Your task to perform on an android device: Add "amazon basics triple a" to the cart on bestbuy.com, then select checkout. Image 0: 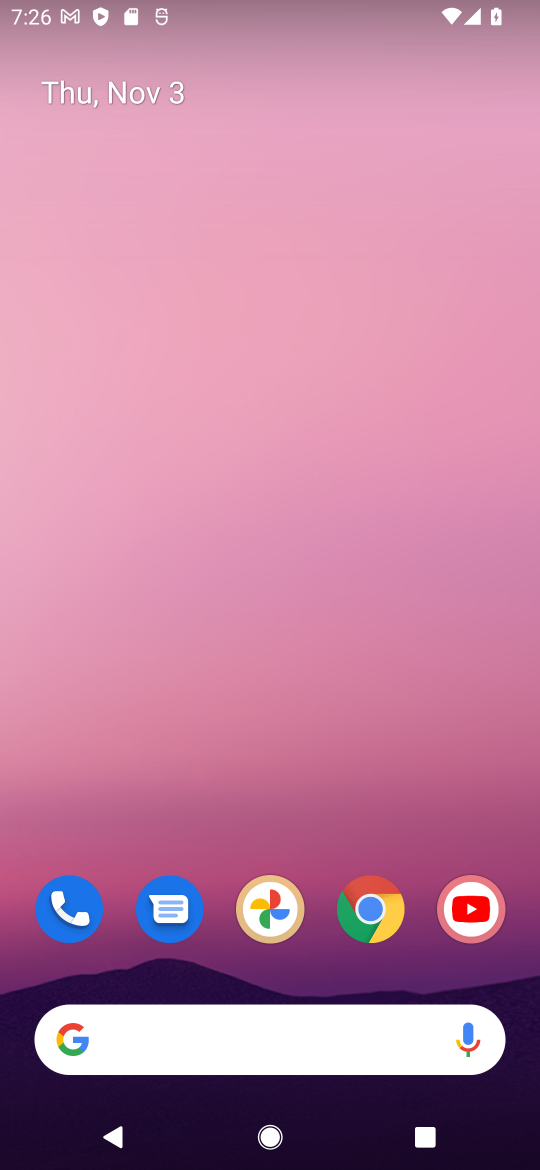
Step 0: drag from (10, 849) to (35, 377)
Your task to perform on an android device: Add "amazon basics triple a" to the cart on bestbuy.com, then select checkout. Image 1: 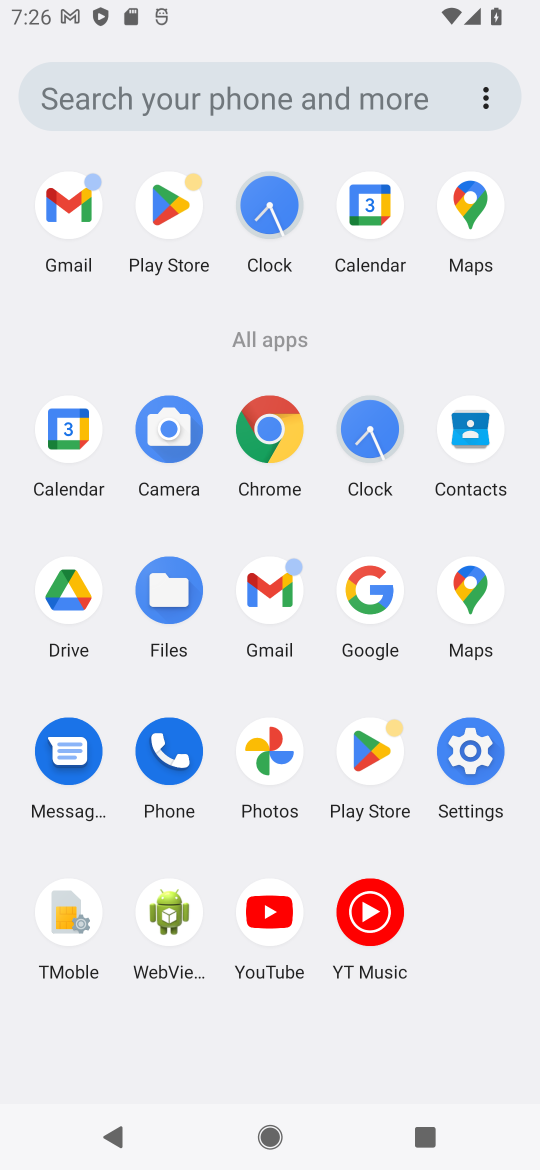
Step 1: click (380, 579)
Your task to perform on an android device: Add "amazon basics triple a" to the cart on bestbuy.com, then select checkout. Image 2: 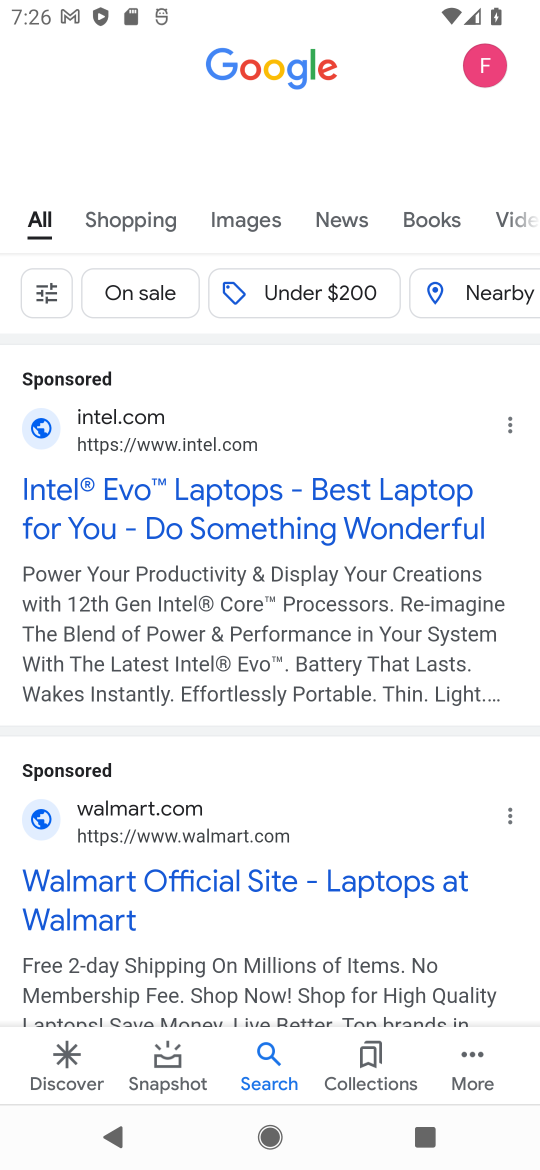
Step 2: drag from (251, 344) to (268, 953)
Your task to perform on an android device: Add "amazon basics triple a" to the cart on bestbuy.com, then select checkout. Image 3: 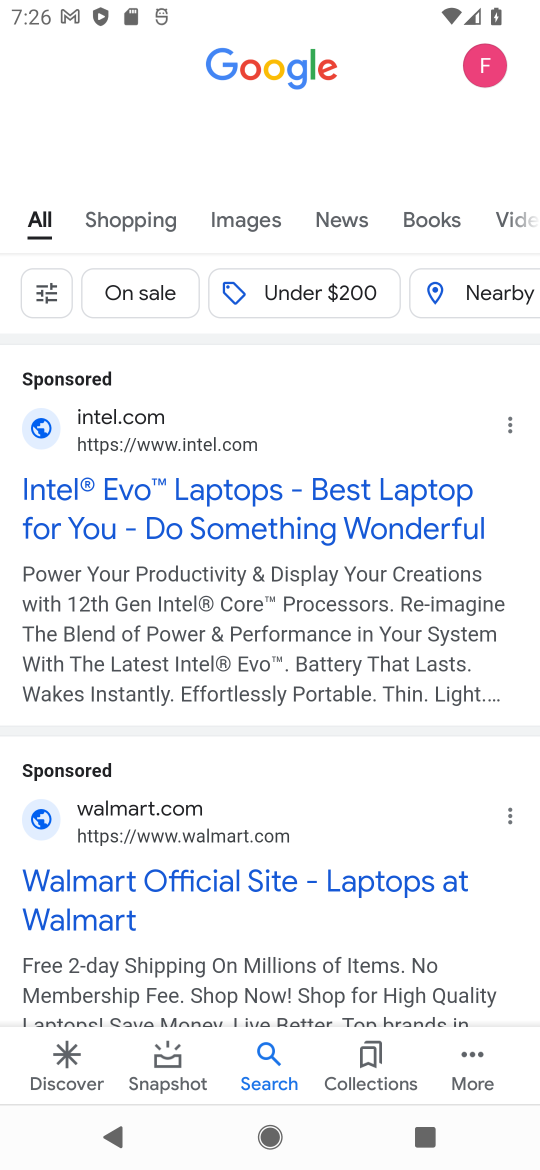
Step 3: drag from (201, 227) to (190, 938)
Your task to perform on an android device: Add "amazon basics triple a" to the cart on bestbuy.com, then select checkout. Image 4: 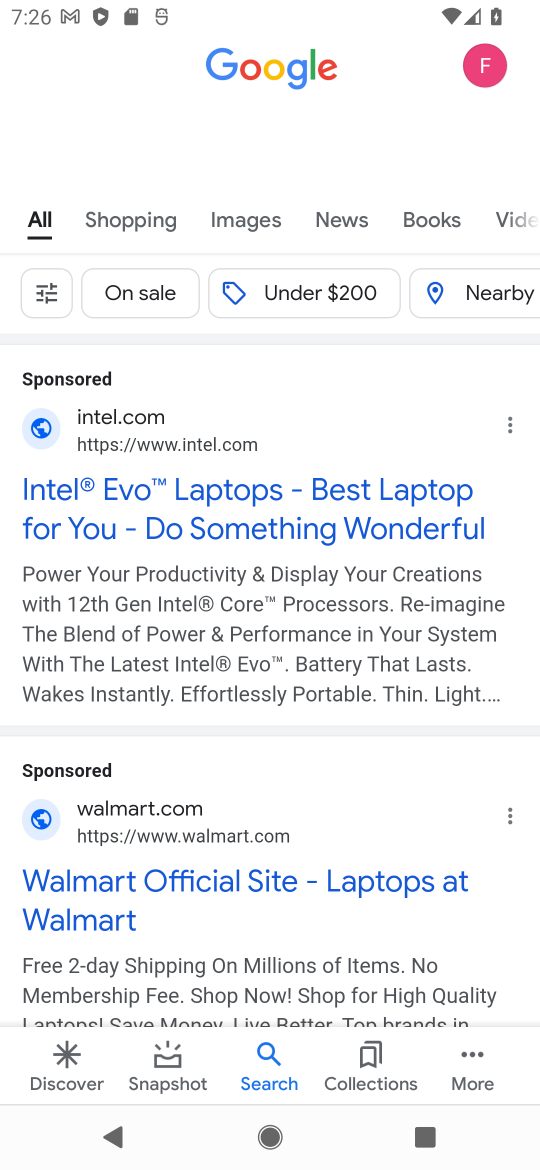
Step 4: drag from (279, 887) to (328, 233)
Your task to perform on an android device: Add "amazon basics triple a" to the cart on bestbuy.com, then select checkout. Image 5: 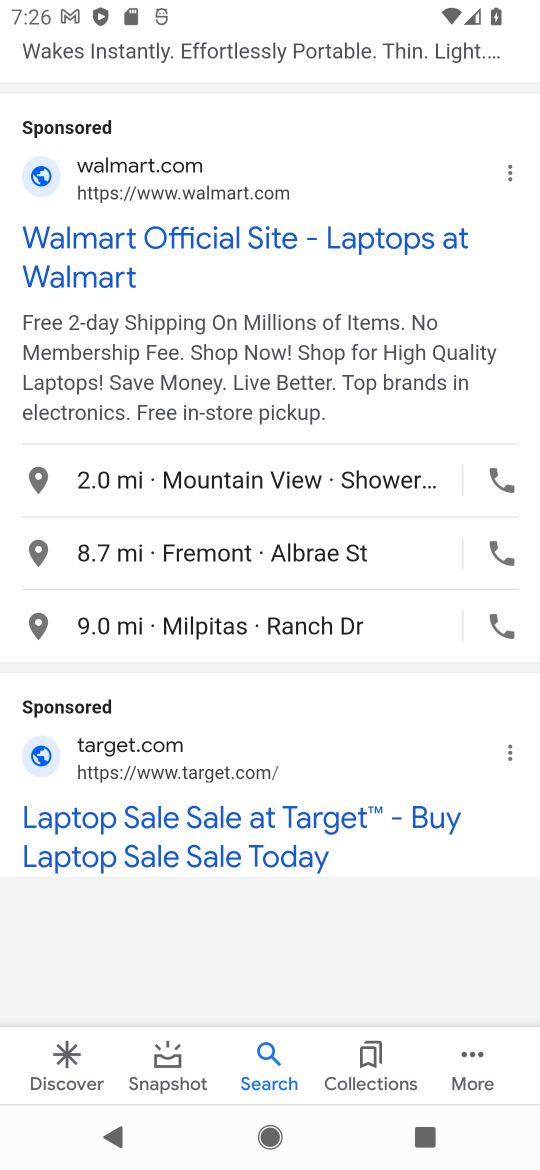
Step 5: drag from (328, 244) to (331, 868)
Your task to perform on an android device: Add "amazon basics triple a" to the cart on bestbuy.com, then select checkout. Image 6: 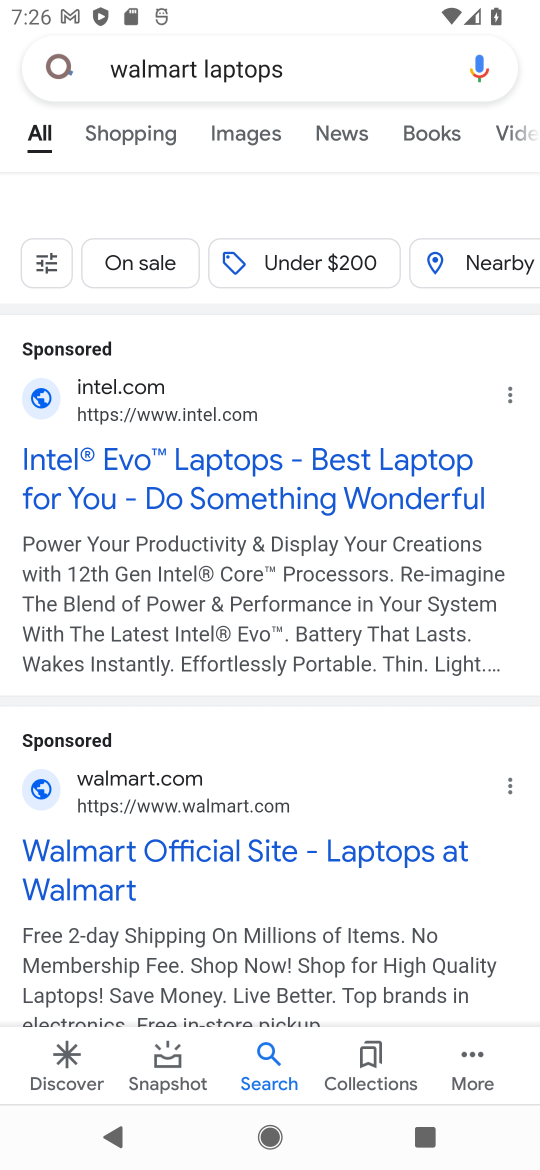
Step 6: drag from (268, 84) to (232, 712)
Your task to perform on an android device: Add "amazon basics triple a" to the cart on bestbuy.com, then select checkout. Image 7: 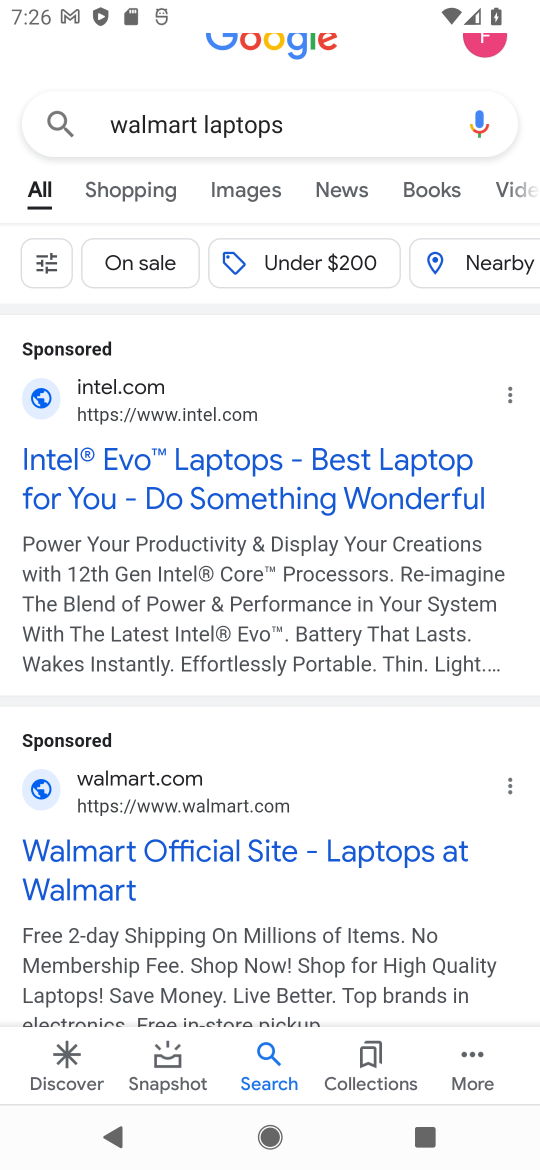
Step 7: click (290, 115)
Your task to perform on an android device: Add "amazon basics triple a" to the cart on bestbuy.com, then select checkout. Image 8: 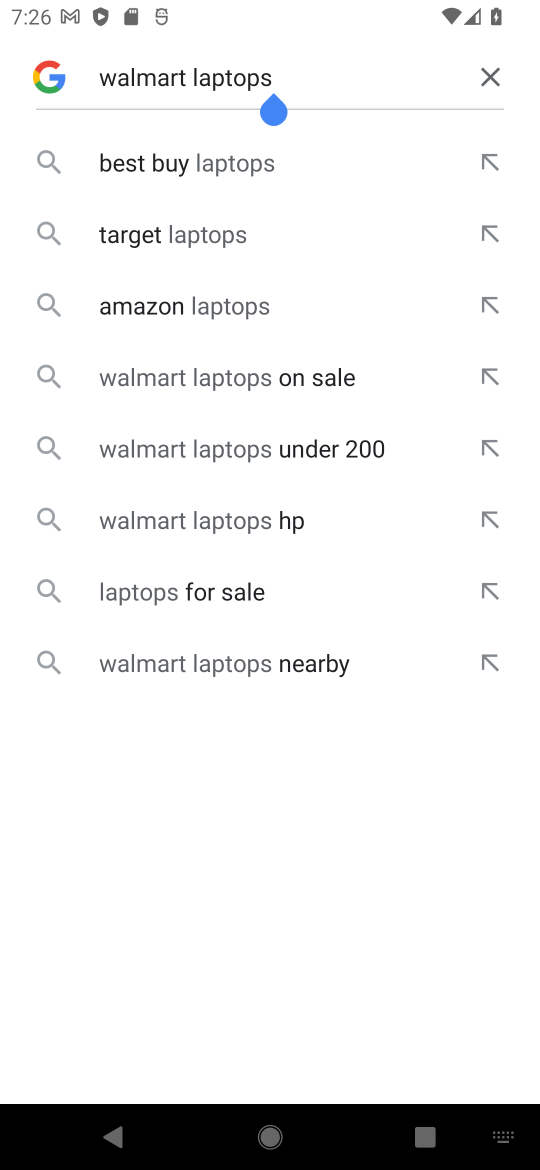
Step 8: click (489, 72)
Your task to perform on an android device: Add "amazon basics triple a" to the cart on bestbuy.com, then select checkout. Image 9: 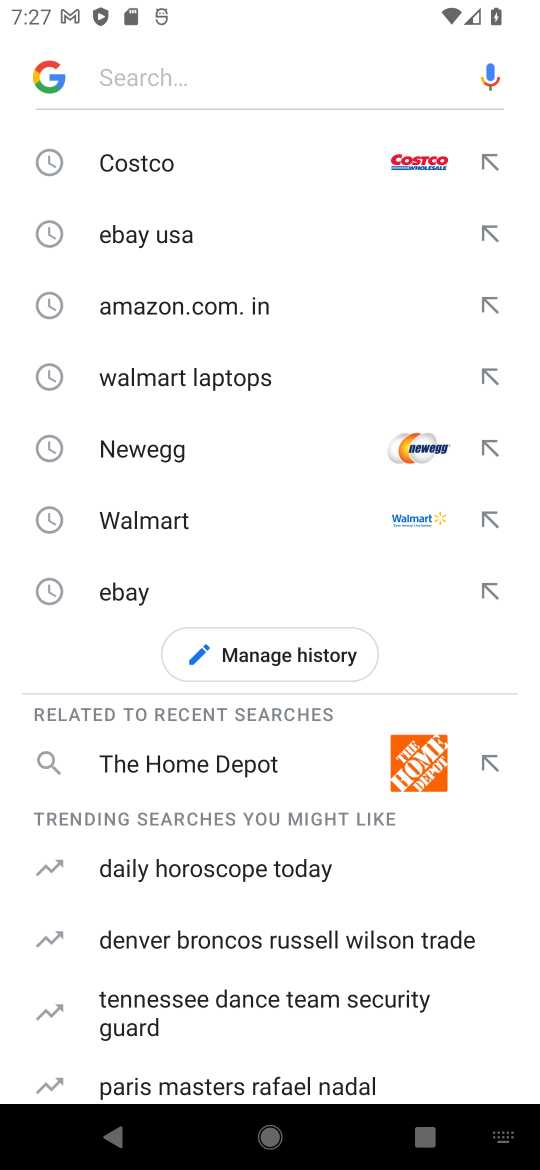
Step 9: click (227, 54)
Your task to perform on an android device: Add "amazon basics triple a" to the cart on bestbuy.com, then select checkout. Image 10: 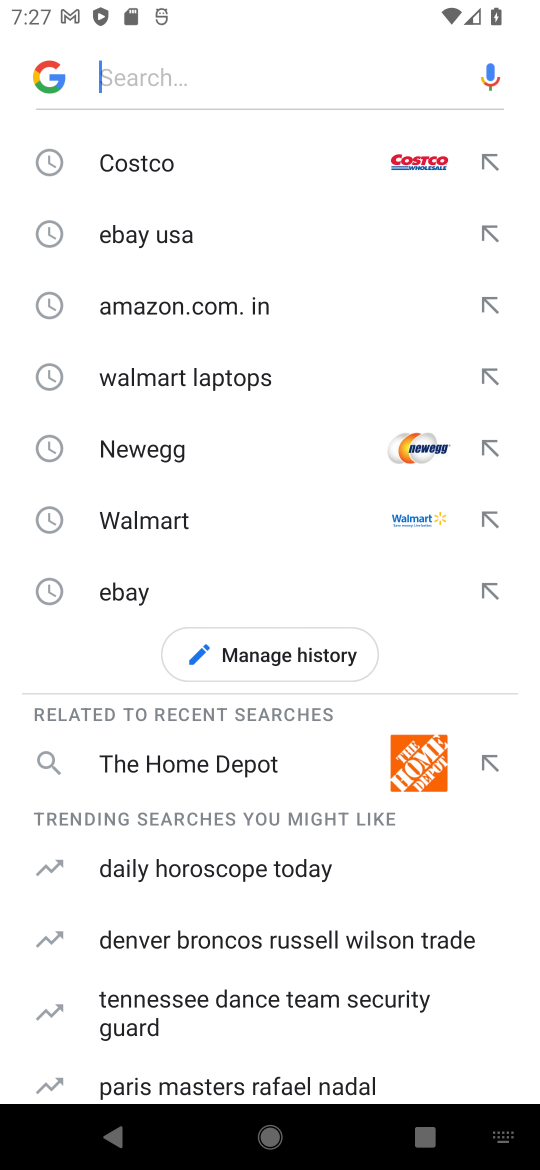
Step 10: type "bestbuy "
Your task to perform on an android device: Add "amazon basics triple a" to the cart on bestbuy.com, then select checkout. Image 11: 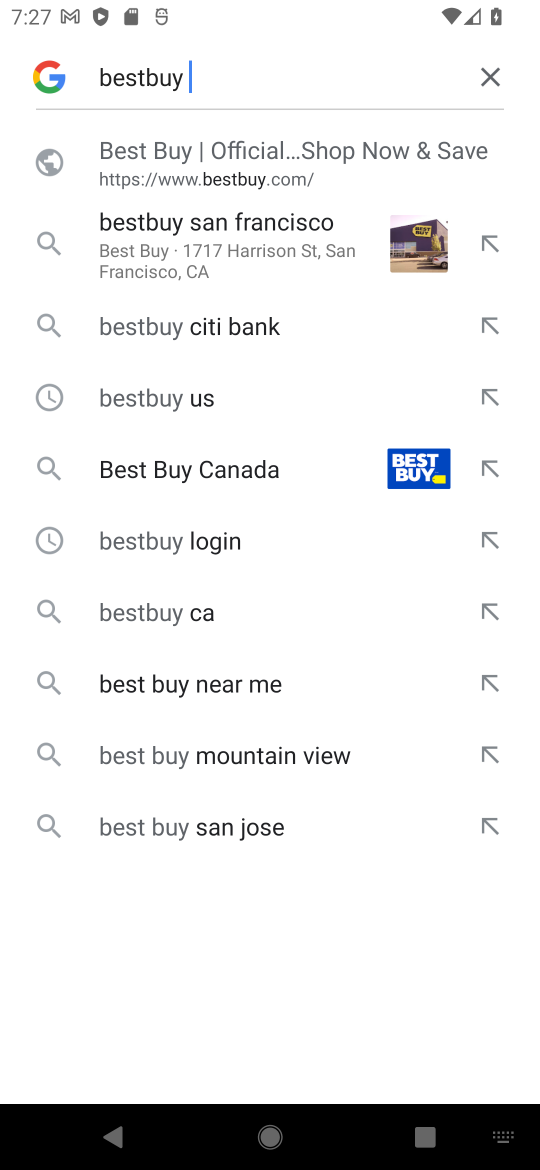
Step 11: click (181, 150)
Your task to perform on an android device: Add "amazon basics triple a" to the cart on bestbuy.com, then select checkout. Image 12: 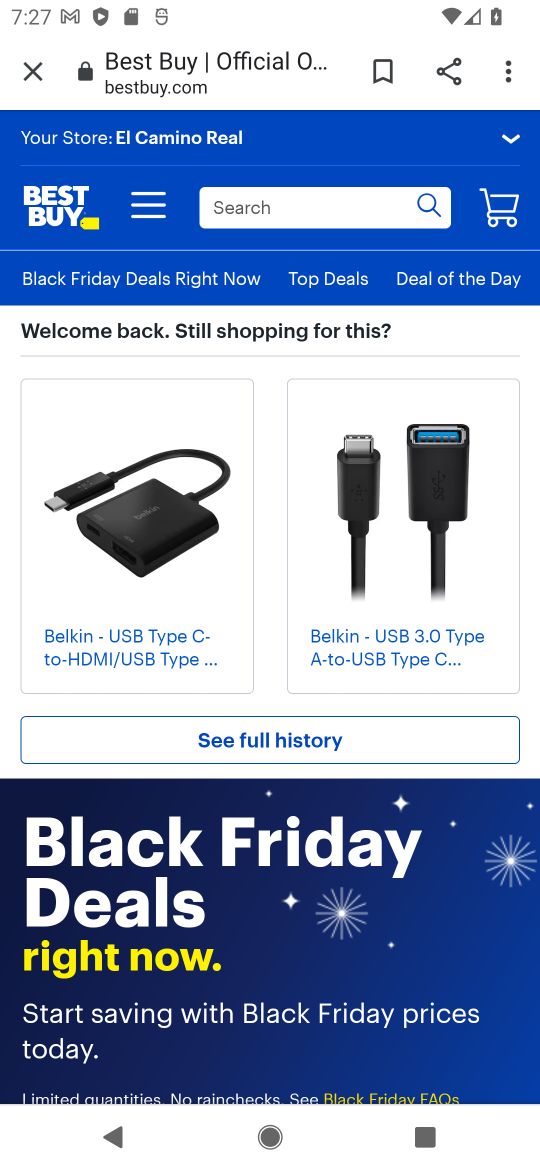
Step 12: click (291, 188)
Your task to perform on an android device: Add "amazon basics triple a" to the cart on bestbuy.com, then select checkout. Image 13: 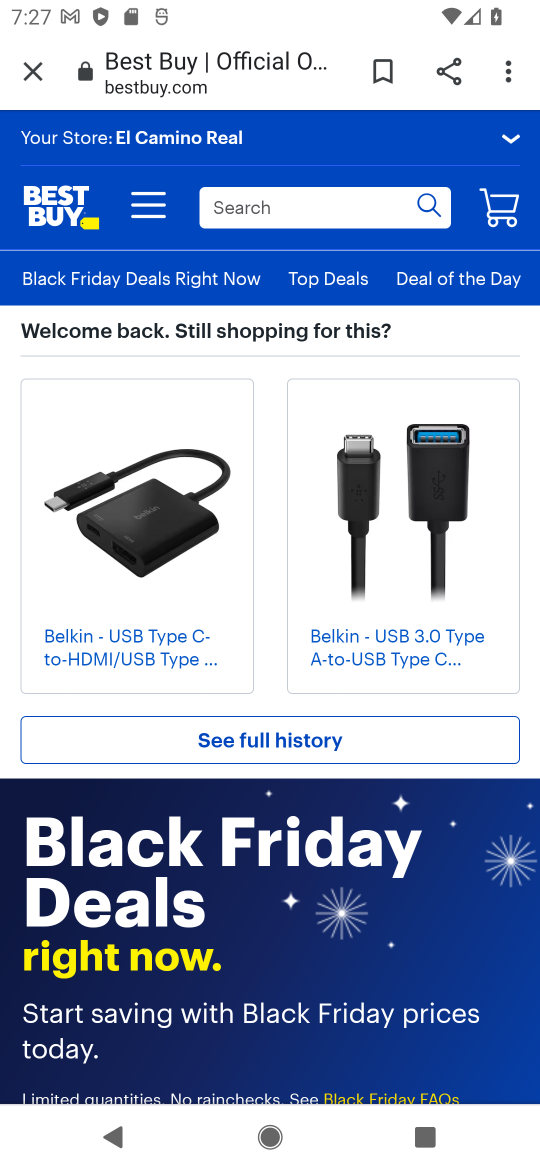
Step 13: click (291, 203)
Your task to perform on an android device: Add "amazon basics triple a" to the cart on bestbuy.com, then select checkout. Image 14: 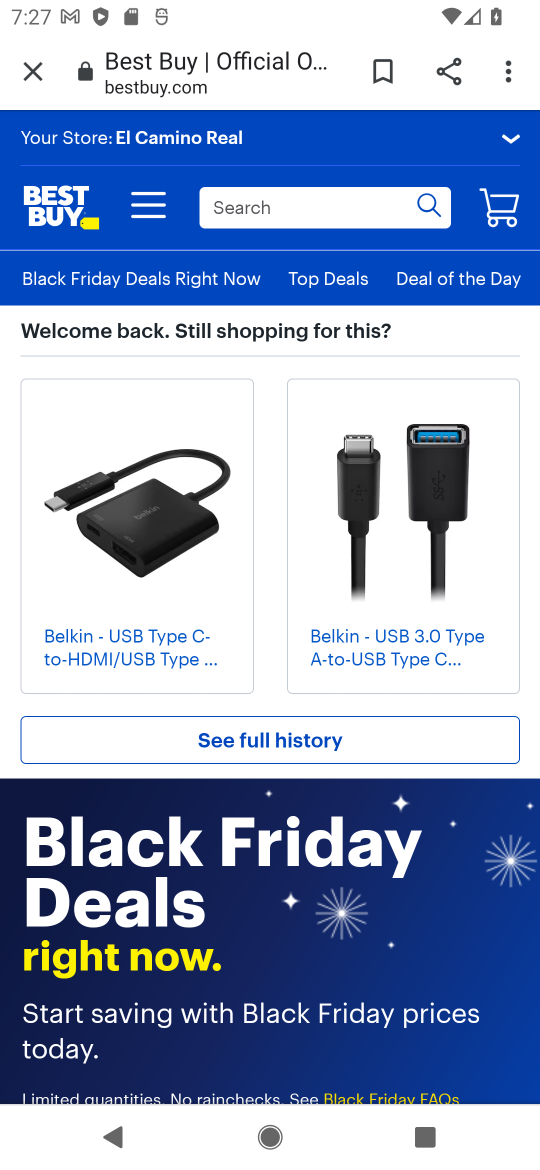
Step 14: type "amazon basics triple  "
Your task to perform on an android device: Add "amazon basics triple a" to the cart on bestbuy.com, then select checkout. Image 15: 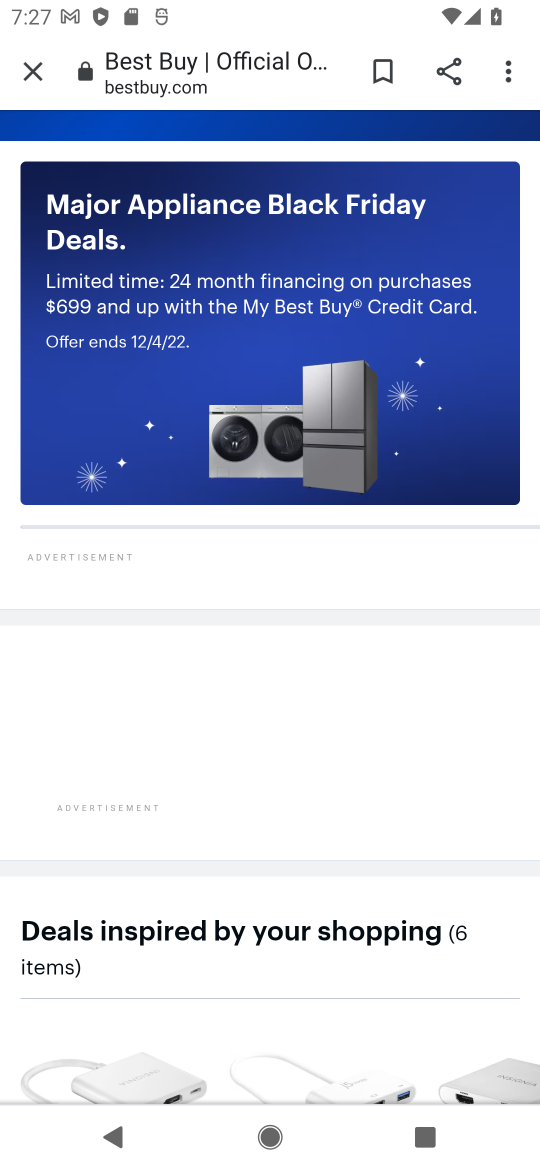
Step 15: drag from (315, 267) to (318, 887)
Your task to perform on an android device: Add "amazon basics triple a" to the cart on bestbuy.com, then select checkout. Image 16: 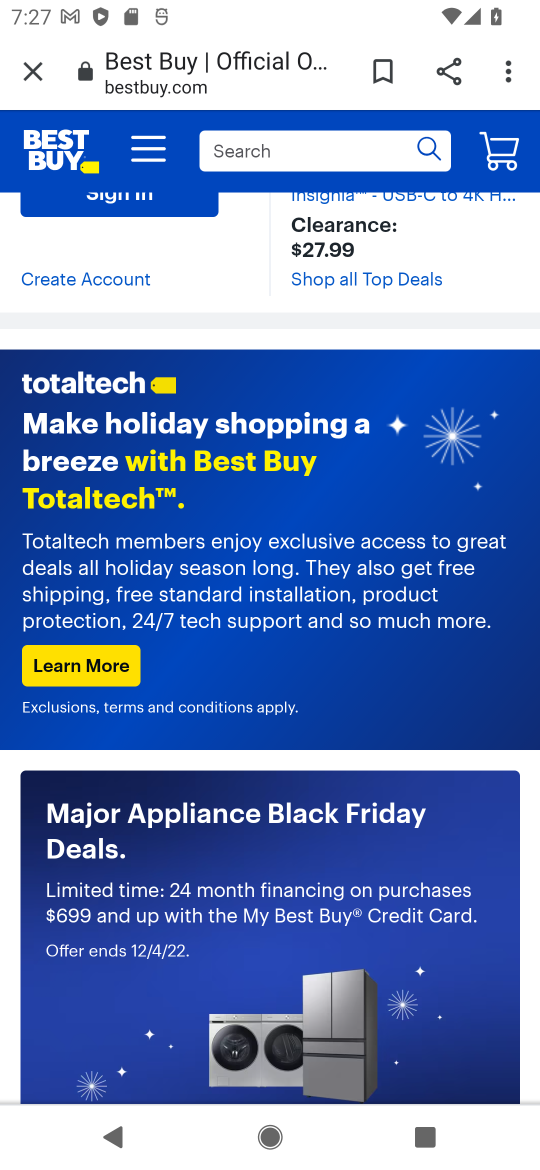
Step 16: click (308, 145)
Your task to perform on an android device: Add "amazon basics triple a" to the cart on bestbuy.com, then select checkout. Image 17: 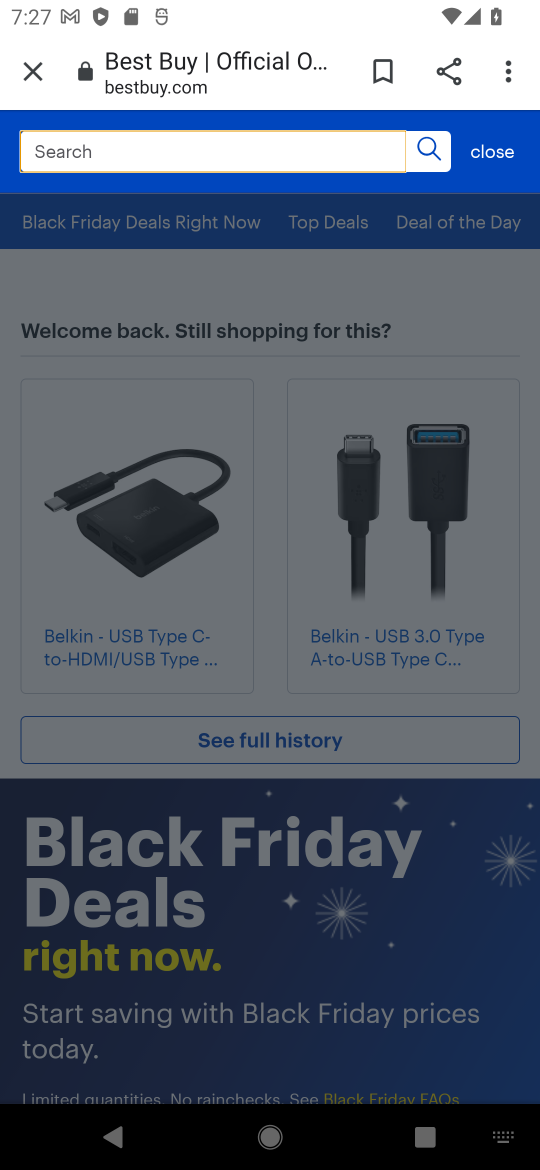
Step 17: type "amazon basics triple  "
Your task to perform on an android device: Add "amazon basics triple a" to the cart on bestbuy.com, then select checkout. Image 18: 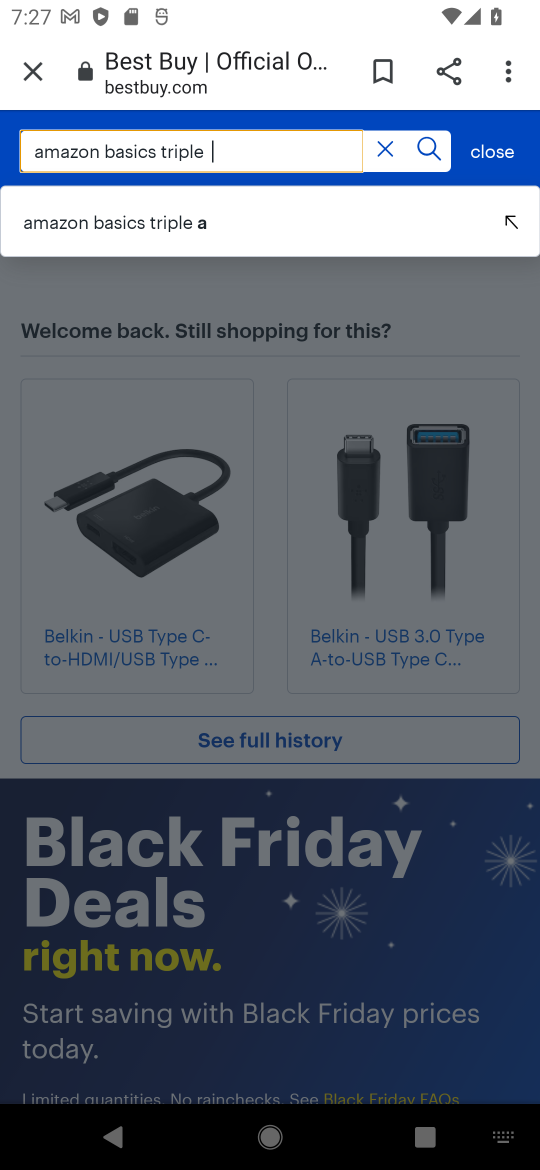
Step 18: click (168, 218)
Your task to perform on an android device: Add "amazon basics triple a" to the cart on bestbuy.com, then select checkout. Image 19: 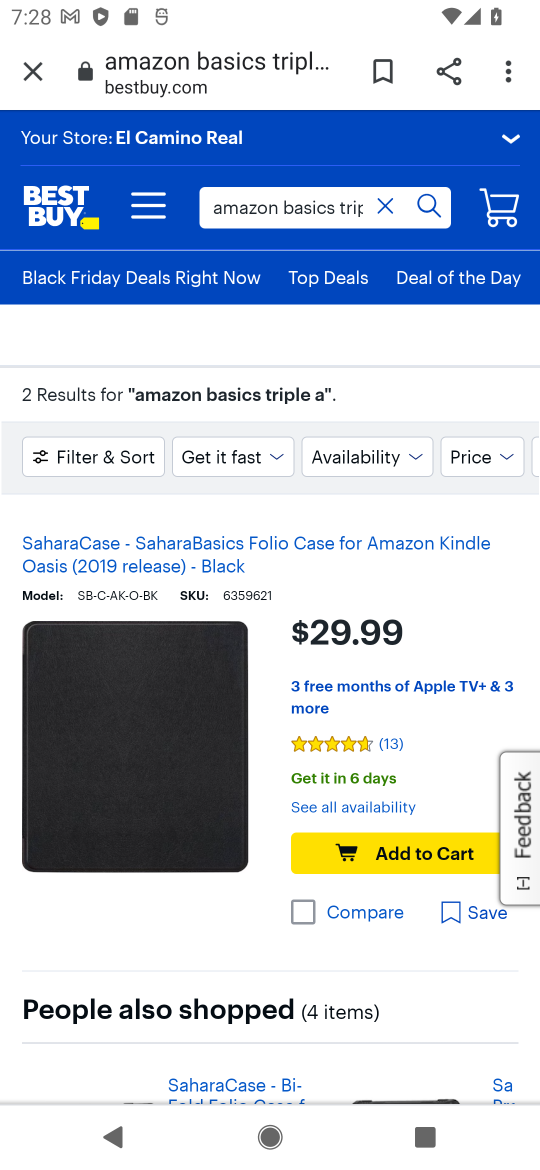
Step 19: drag from (263, 954) to (301, 533)
Your task to perform on an android device: Add "amazon basics triple a" to the cart on bestbuy.com, then select checkout. Image 20: 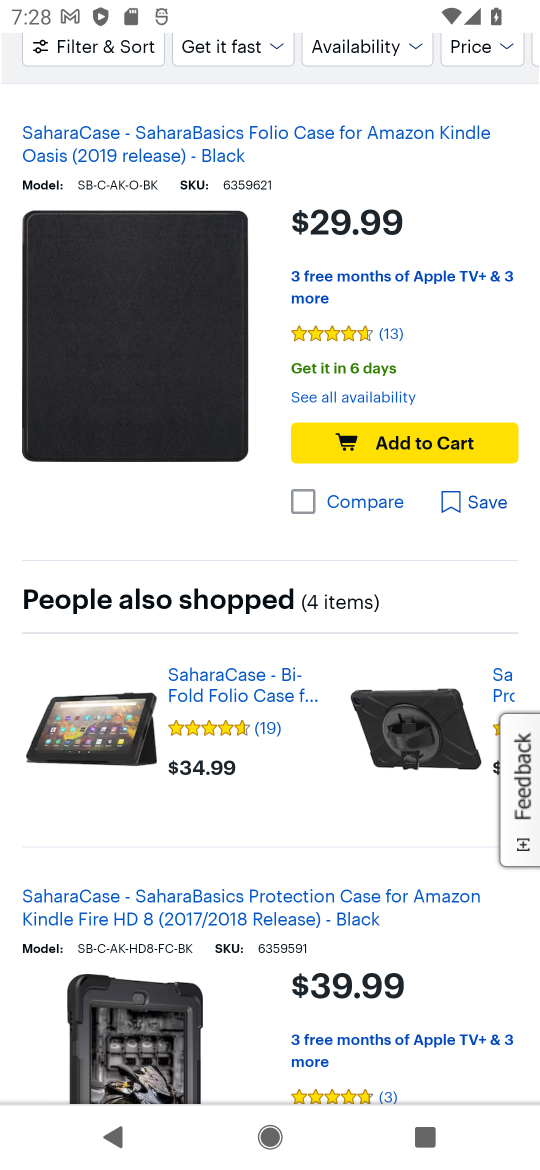
Step 20: drag from (303, 936) to (303, 585)
Your task to perform on an android device: Add "amazon basics triple a" to the cart on bestbuy.com, then select checkout. Image 21: 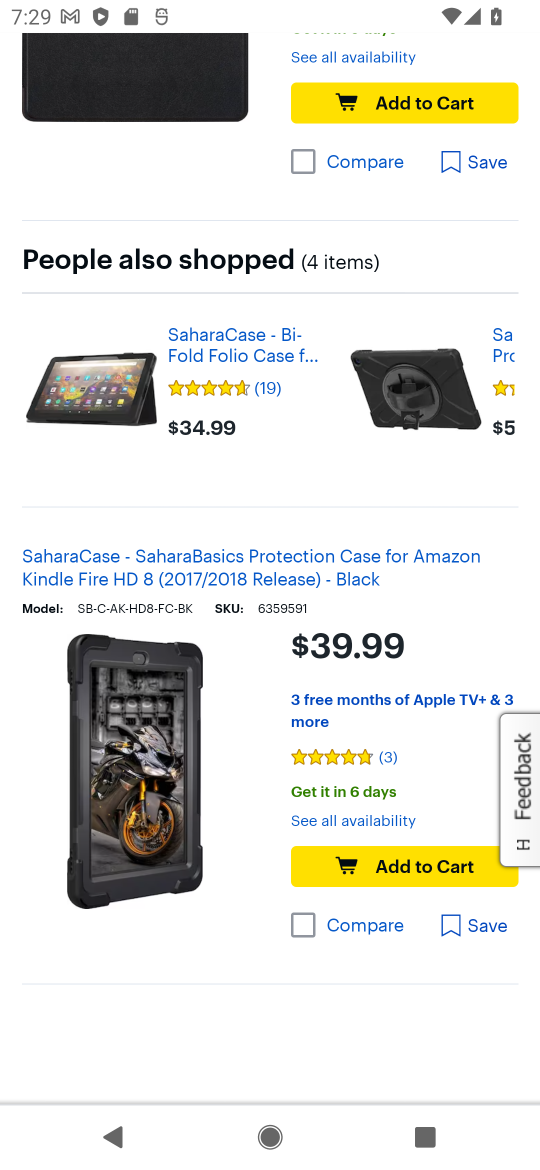
Step 21: drag from (121, 259) to (122, 906)
Your task to perform on an android device: Add "amazon basics triple a" to the cart on bestbuy.com, then select checkout. Image 22: 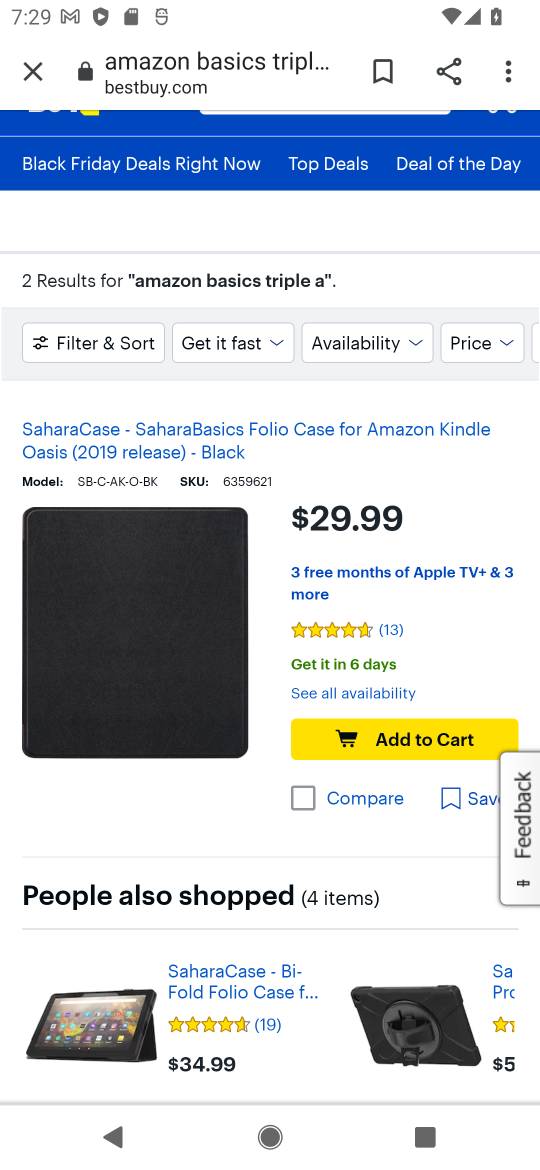
Step 22: click (387, 741)
Your task to perform on an android device: Add "amazon basics triple a" to the cart on bestbuy.com, then select checkout. Image 23: 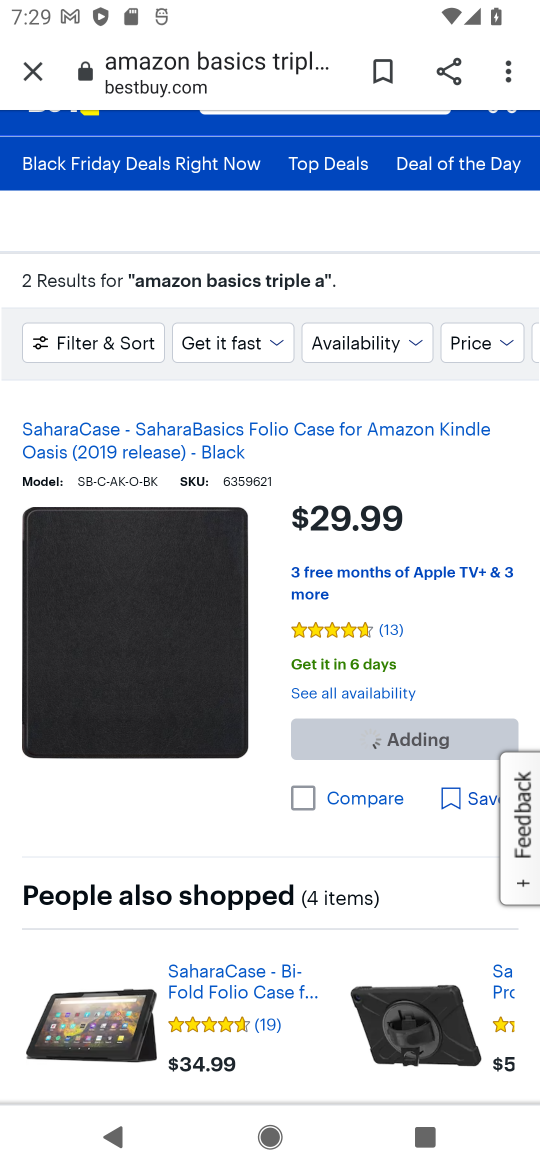
Step 23: task complete